Your task to perform on an android device: Open wifi settings Image 0: 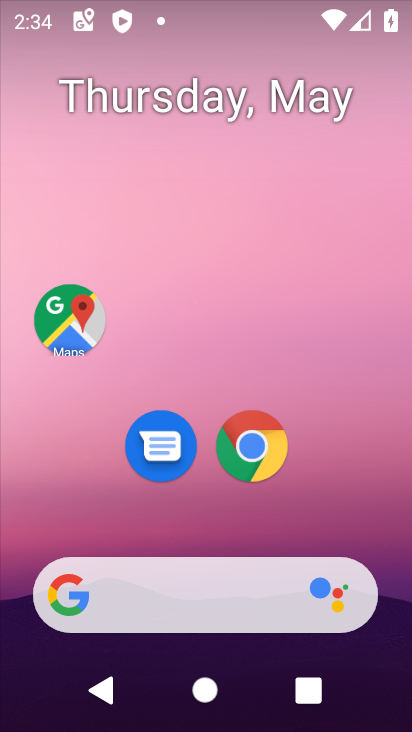
Step 0: drag from (312, 522) to (298, 0)
Your task to perform on an android device: Open wifi settings Image 1: 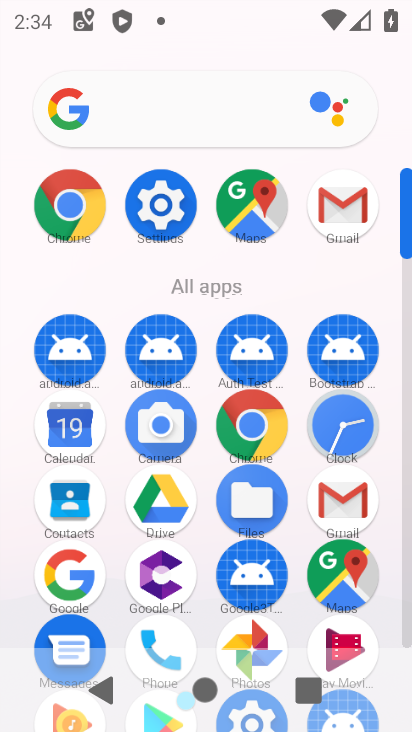
Step 1: click (148, 202)
Your task to perform on an android device: Open wifi settings Image 2: 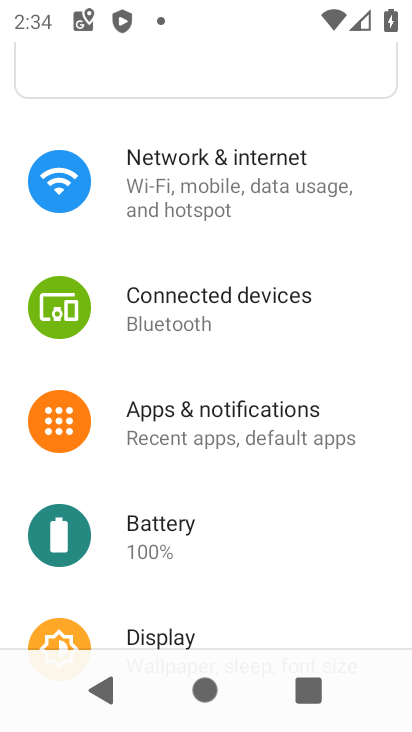
Step 2: click (157, 186)
Your task to perform on an android device: Open wifi settings Image 3: 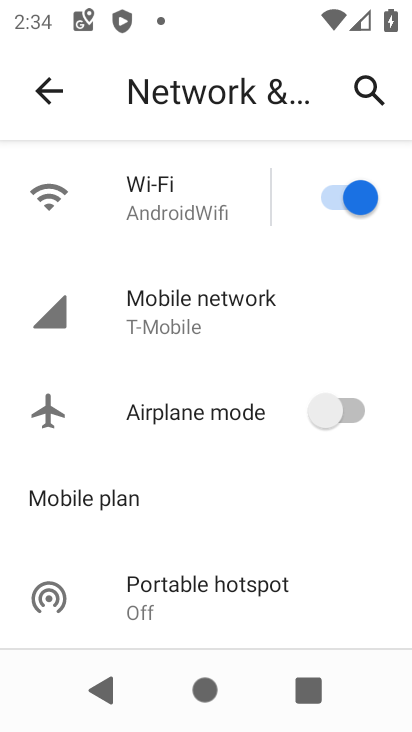
Step 3: click (77, 206)
Your task to perform on an android device: Open wifi settings Image 4: 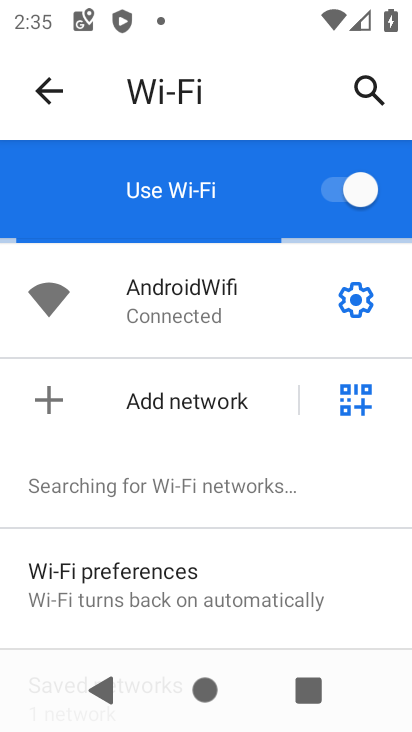
Step 4: task complete